Your task to perform on an android device: turn notification dots on Image 0: 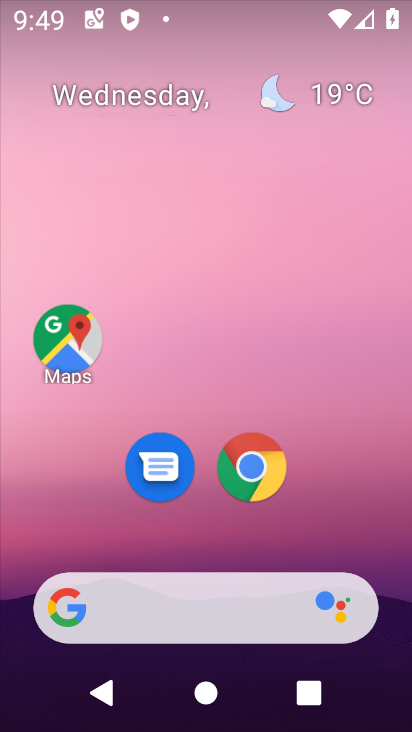
Step 0: drag from (317, 533) to (225, 73)
Your task to perform on an android device: turn notification dots on Image 1: 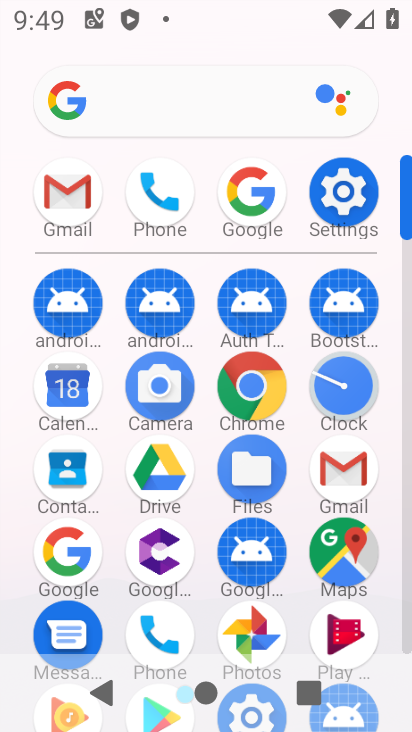
Step 1: click (345, 199)
Your task to perform on an android device: turn notification dots on Image 2: 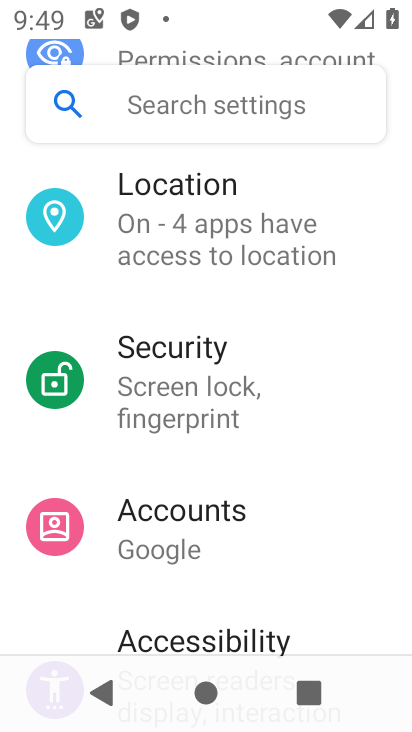
Step 2: drag from (247, 186) to (303, 643)
Your task to perform on an android device: turn notification dots on Image 3: 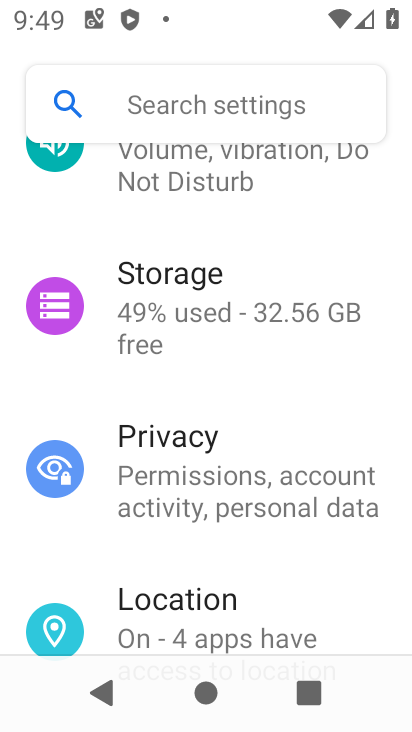
Step 3: drag from (286, 207) to (293, 663)
Your task to perform on an android device: turn notification dots on Image 4: 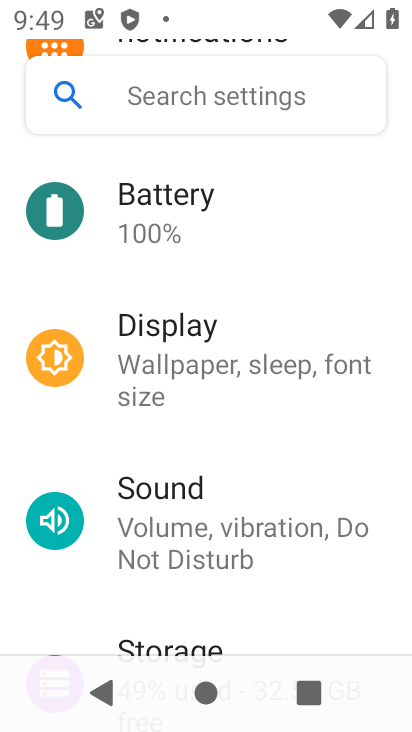
Step 4: drag from (289, 277) to (261, 590)
Your task to perform on an android device: turn notification dots on Image 5: 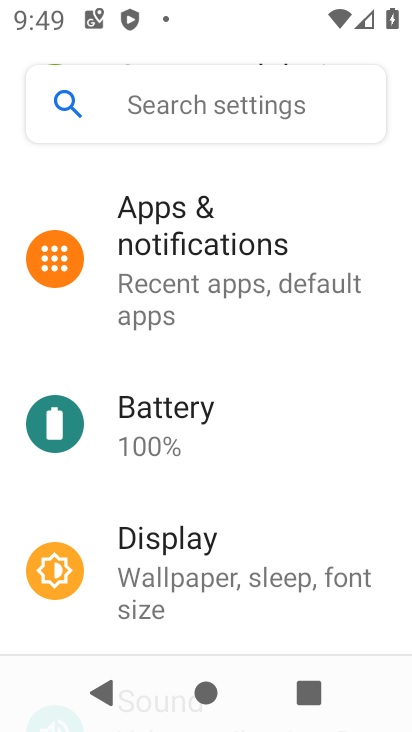
Step 5: click (243, 279)
Your task to perform on an android device: turn notification dots on Image 6: 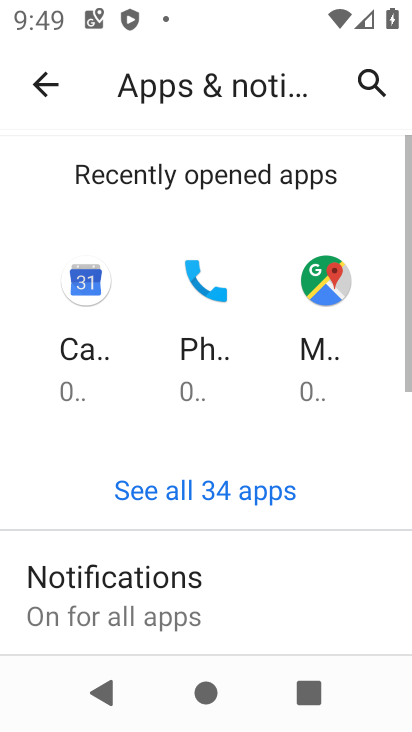
Step 6: click (252, 570)
Your task to perform on an android device: turn notification dots on Image 7: 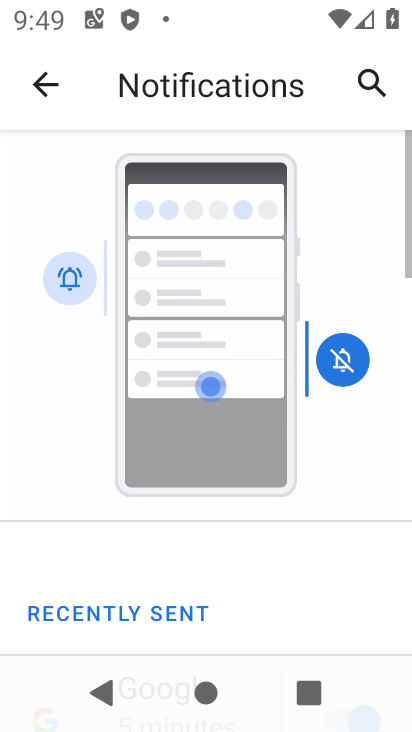
Step 7: drag from (249, 582) to (241, 157)
Your task to perform on an android device: turn notification dots on Image 8: 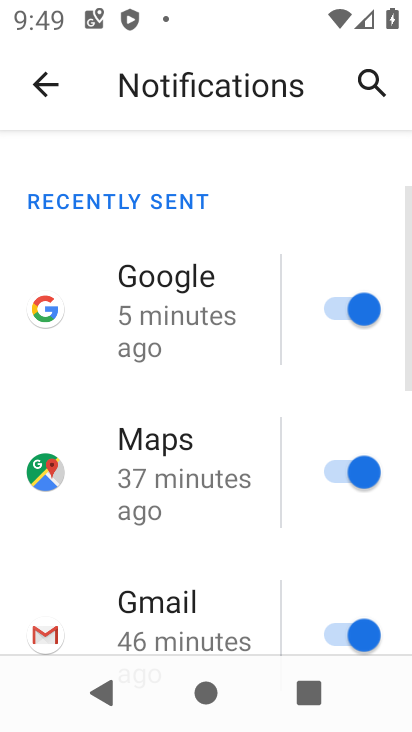
Step 8: drag from (247, 527) to (247, 150)
Your task to perform on an android device: turn notification dots on Image 9: 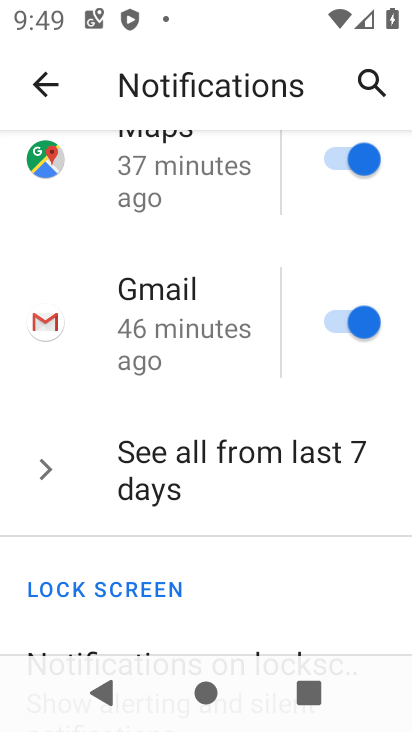
Step 9: drag from (263, 605) to (241, 122)
Your task to perform on an android device: turn notification dots on Image 10: 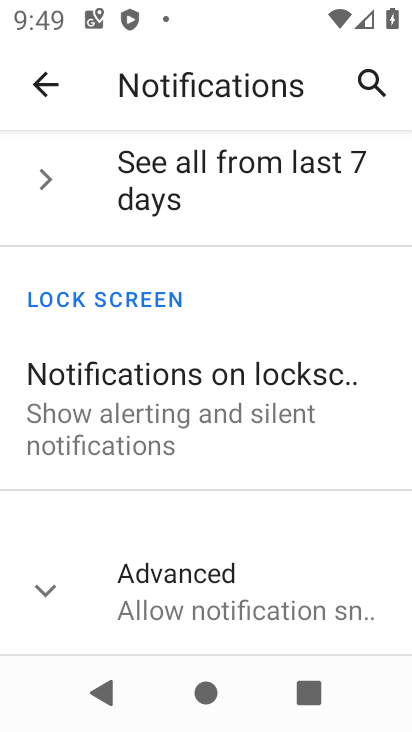
Step 10: click (264, 586)
Your task to perform on an android device: turn notification dots on Image 11: 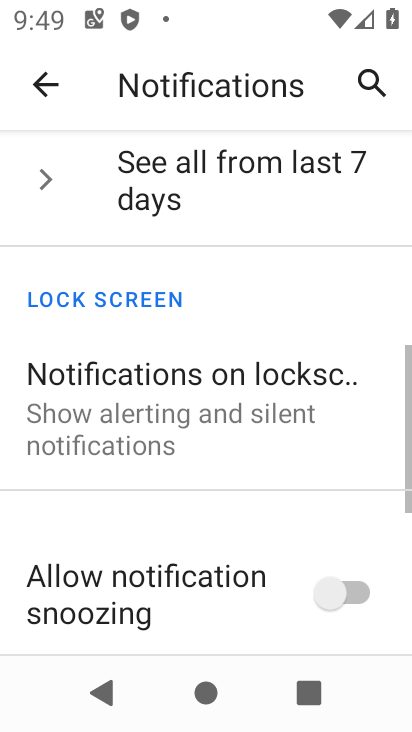
Step 11: task complete